Your task to perform on an android device: turn off priority inbox in the gmail app Image 0: 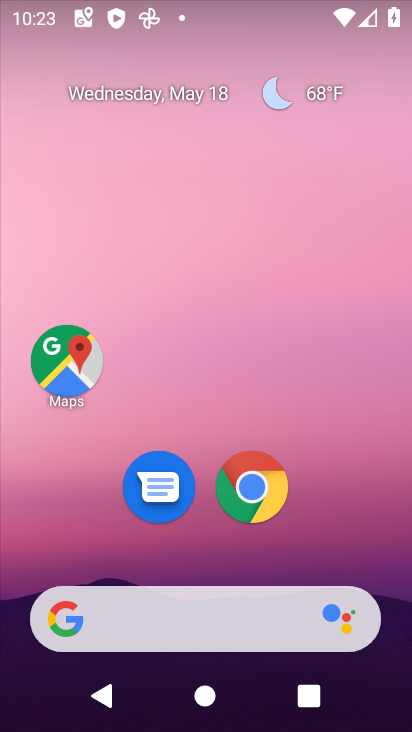
Step 0: drag from (351, 508) to (349, 244)
Your task to perform on an android device: turn off priority inbox in the gmail app Image 1: 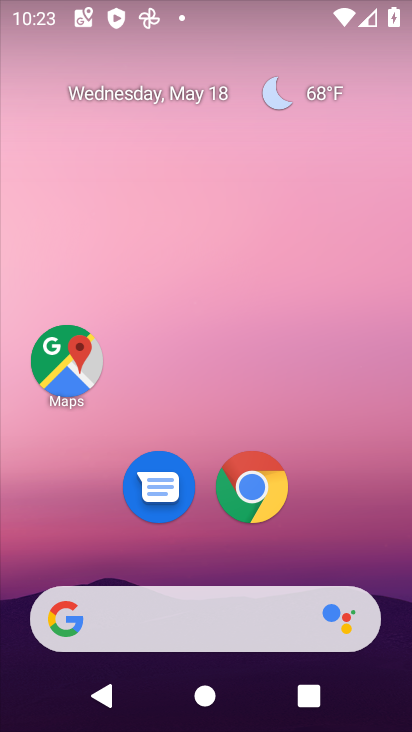
Step 1: drag from (383, 517) to (353, 208)
Your task to perform on an android device: turn off priority inbox in the gmail app Image 2: 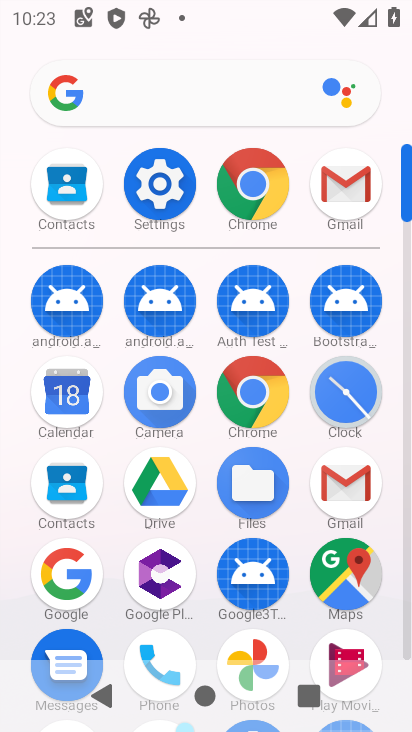
Step 2: click (339, 498)
Your task to perform on an android device: turn off priority inbox in the gmail app Image 3: 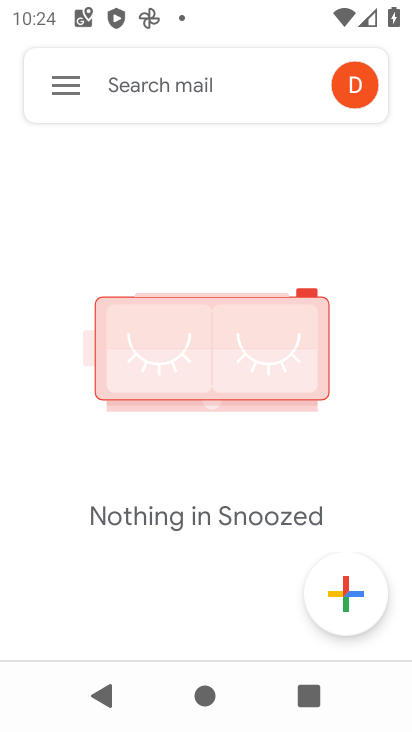
Step 3: click (57, 98)
Your task to perform on an android device: turn off priority inbox in the gmail app Image 4: 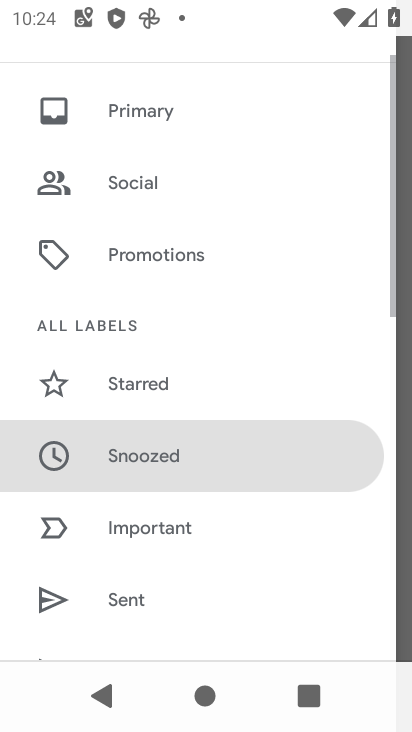
Step 4: drag from (213, 596) to (241, 226)
Your task to perform on an android device: turn off priority inbox in the gmail app Image 5: 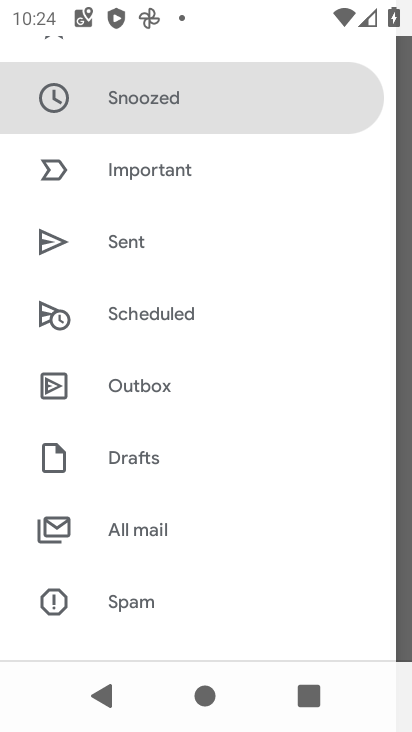
Step 5: drag from (218, 585) to (222, 248)
Your task to perform on an android device: turn off priority inbox in the gmail app Image 6: 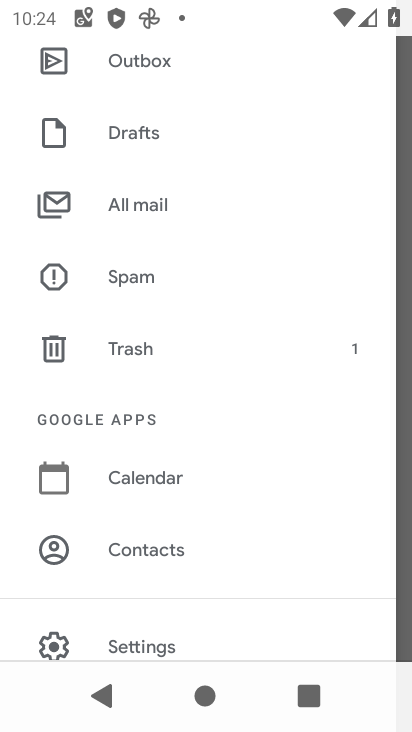
Step 6: click (188, 636)
Your task to perform on an android device: turn off priority inbox in the gmail app Image 7: 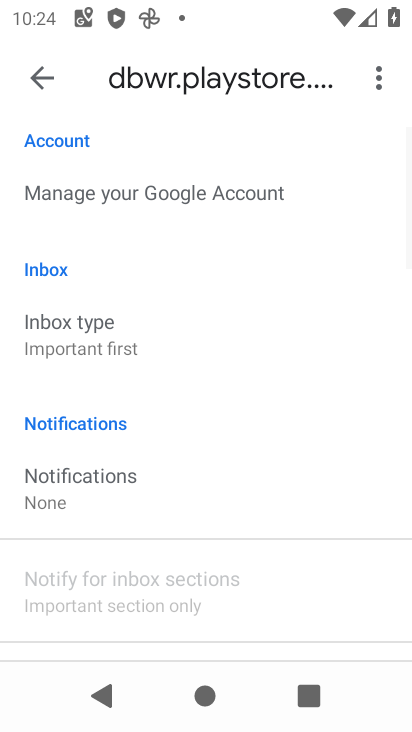
Step 7: click (133, 333)
Your task to perform on an android device: turn off priority inbox in the gmail app Image 8: 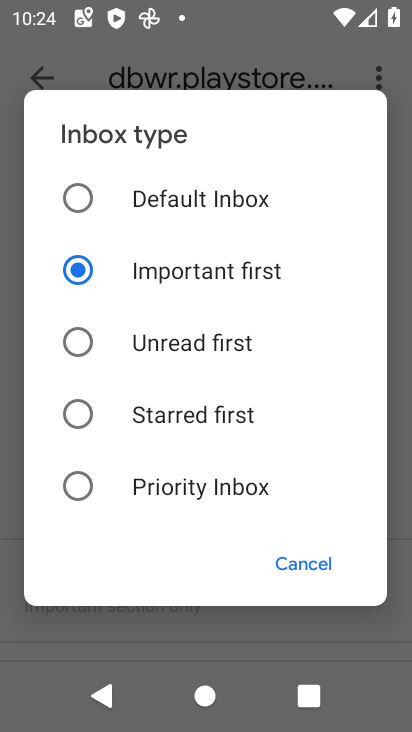
Step 8: click (70, 192)
Your task to perform on an android device: turn off priority inbox in the gmail app Image 9: 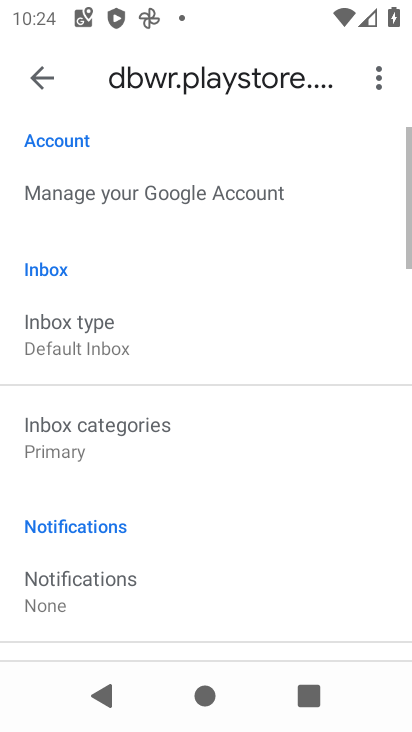
Step 9: task complete